Your task to perform on an android device: choose inbox layout in the gmail app Image 0: 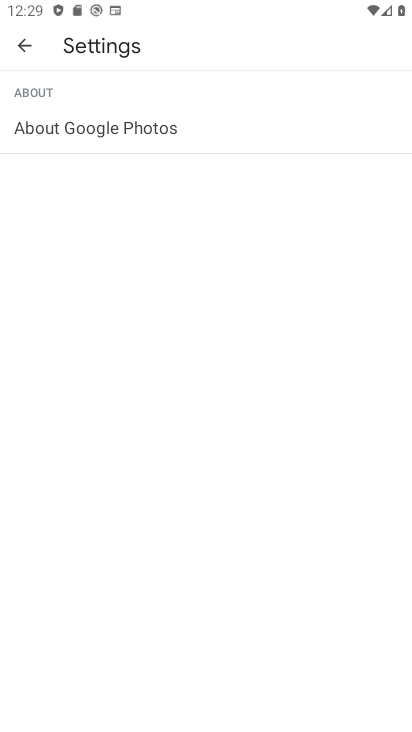
Step 0: press home button
Your task to perform on an android device: choose inbox layout in the gmail app Image 1: 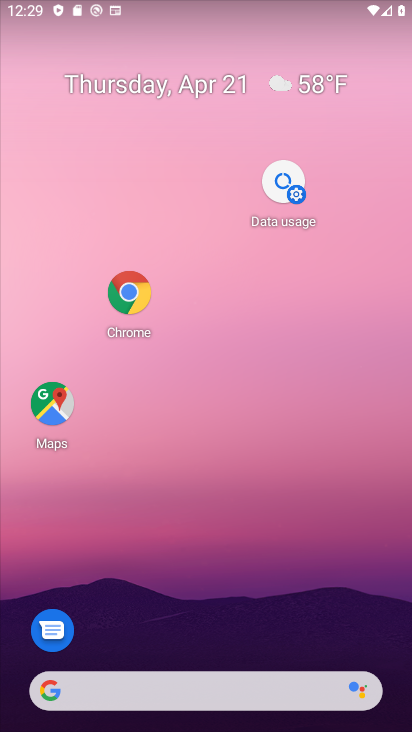
Step 1: drag from (202, 671) to (238, 400)
Your task to perform on an android device: choose inbox layout in the gmail app Image 2: 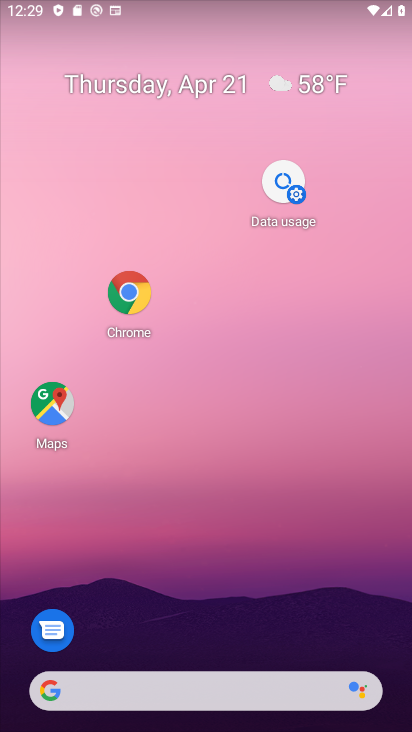
Step 2: drag from (201, 674) to (256, 234)
Your task to perform on an android device: choose inbox layout in the gmail app Image 3: 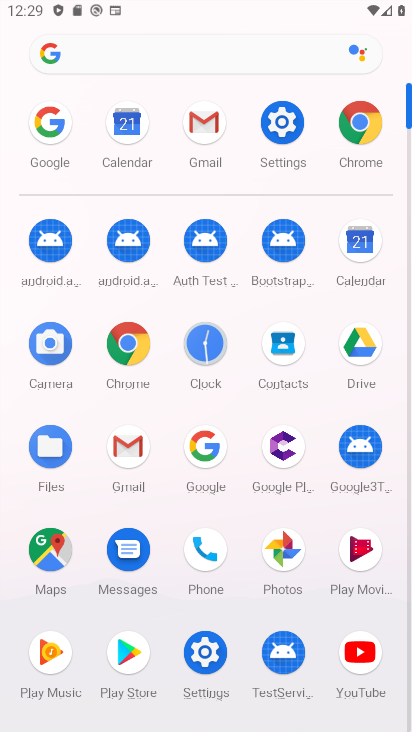
Step 3: click (185, 113)
Your task to perform on an android device: choose inbox layout in the gmail app Image 4: 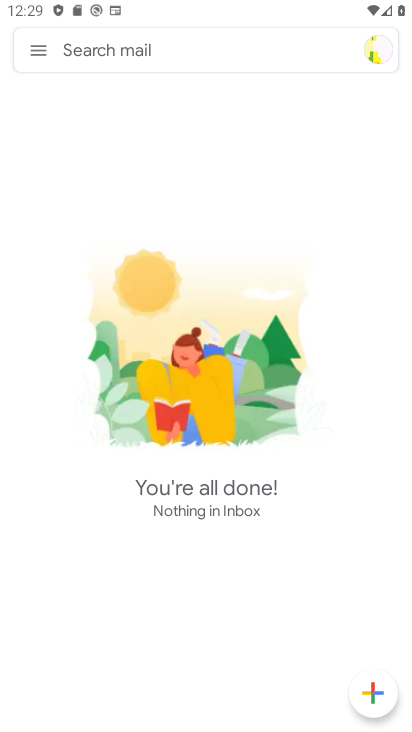
Step 4: click (36, 51)
Your task to perform on an android device: choose inbox layout in the gmail app Image 5: 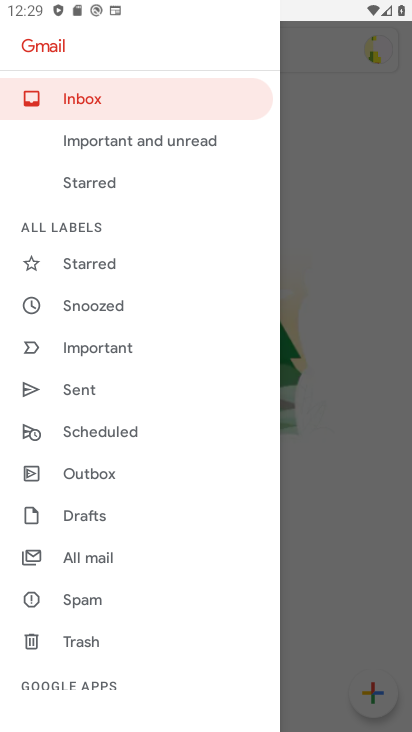
Step 5: drag from (69, 665) to (107, 231)
Your task to perform on an android device: choose inbox layout in the gmail app Image 6: 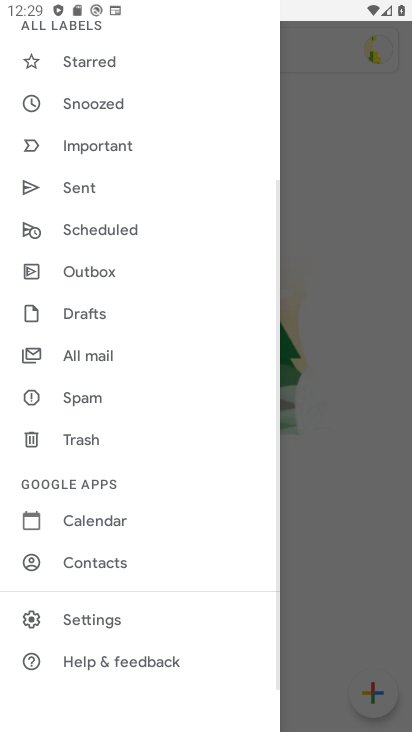
Step 6: click (73, 619)
Your task to perform on an android device: choose inbox layout in the gmail app Image 7: 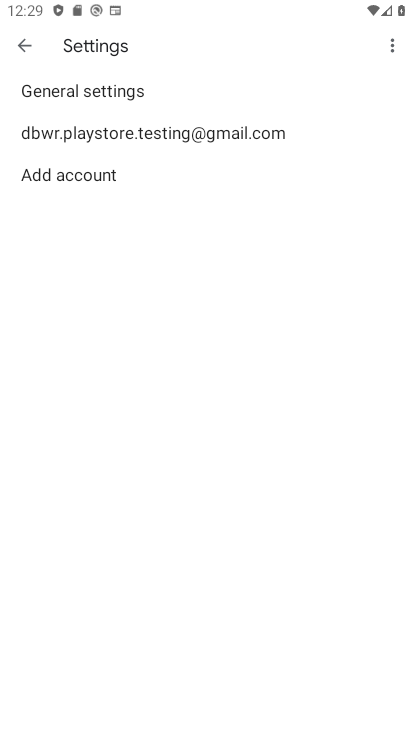
Step 7: click (87, 142)
Your task to perform on an android device: choose inbox layout in the gmail app Image 8: 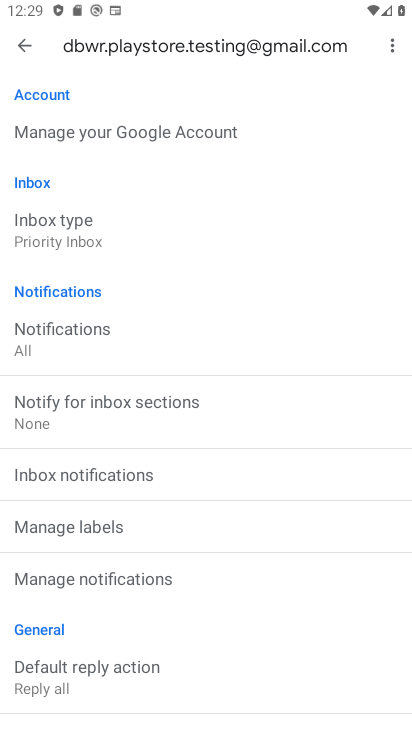
Step 8: click (32, 236)
Your task to perform on an android device: choose inbox layout in the gmail app Image 9: 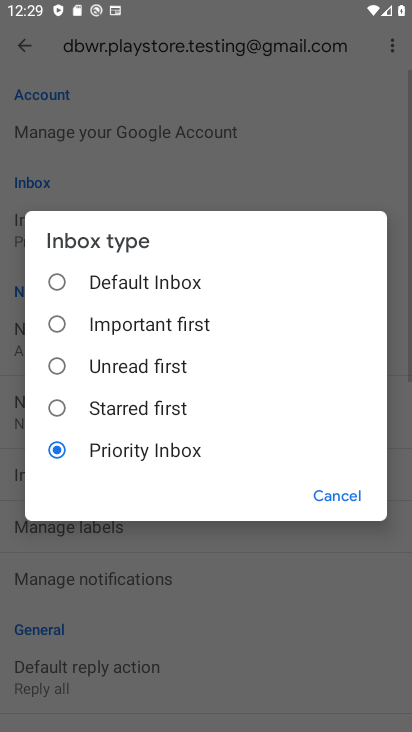
Step 9: click (90, 320)
Your task to perform on an android device: choose inbox layout in the gmail app Image 10: 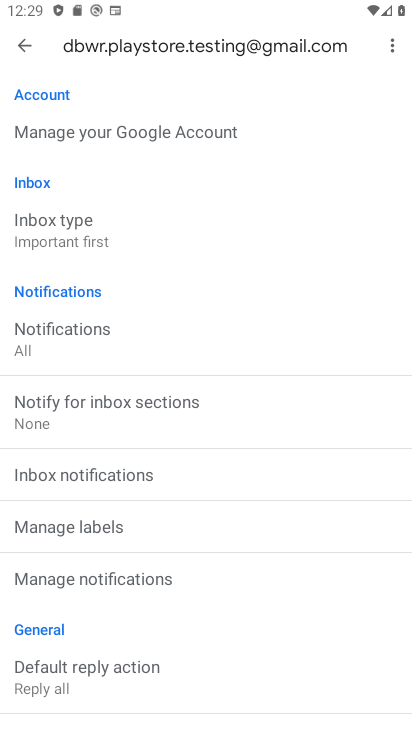
Step 10: task complete